Your task to perform on an android device: clear history in the chrome app Image 0: 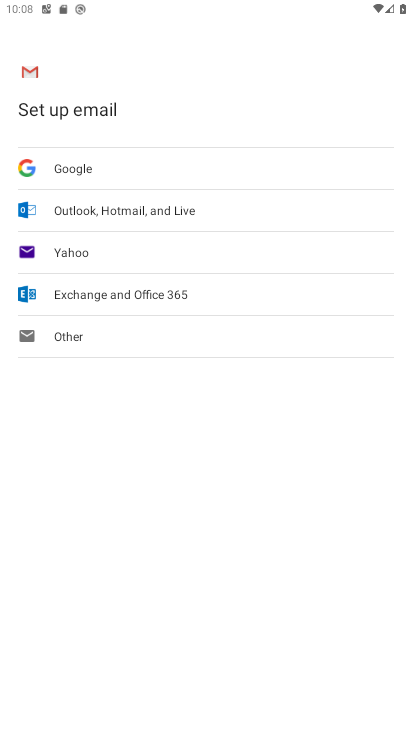
Step 0: press back button
Your task to perform on an android device: clear history in the chrome app Image 1: 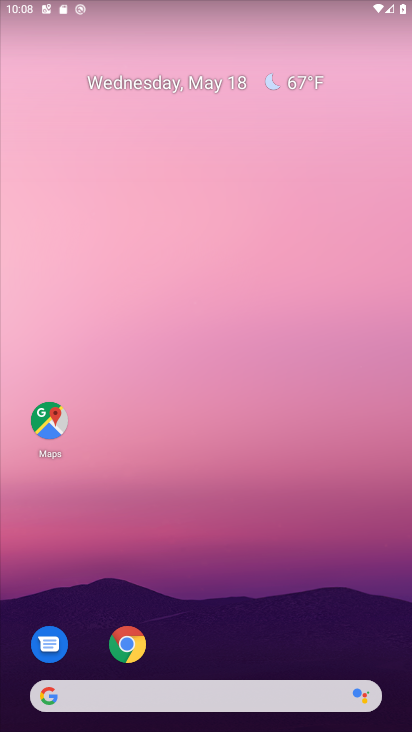
Step 1: click (129, 645)
Your task to perform on an android device: clear history in the chrome app Image 2: 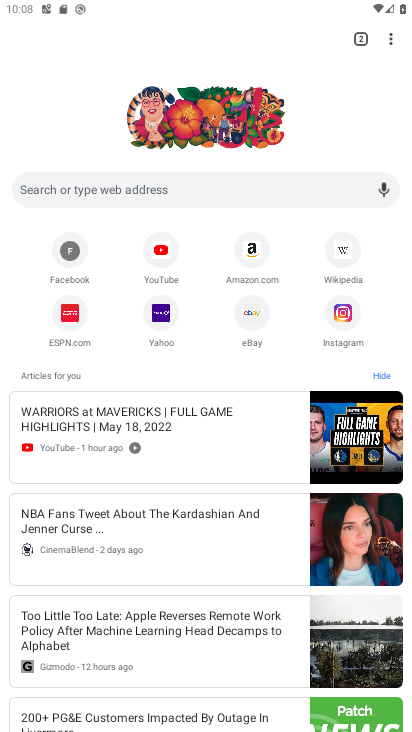
Step 2: click (392, 39)
Your task to perform on an android device: clear history in the chrome app Image 3: 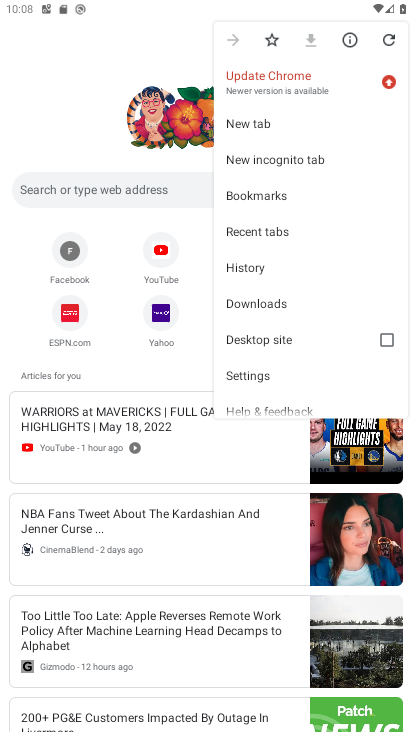
Step 3: click (256, 271)
Your task to perform on an android device: clear history in the chrome app Image 4: 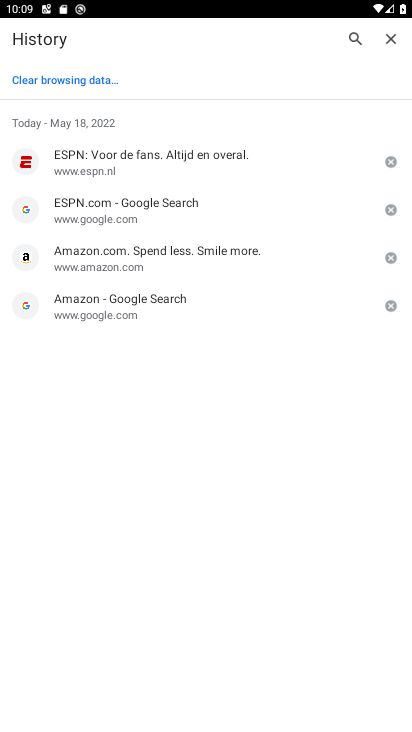
Step 4: click (80, 77)
Your task to perform on an android device: clear history in the chrome app Image 5: 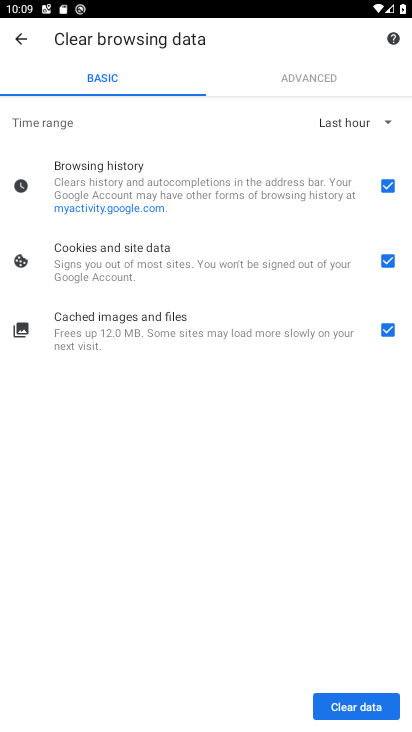
Step 5: click (345, 113)
Your task to perform on an android device: clear history in the chrome app Image 6: 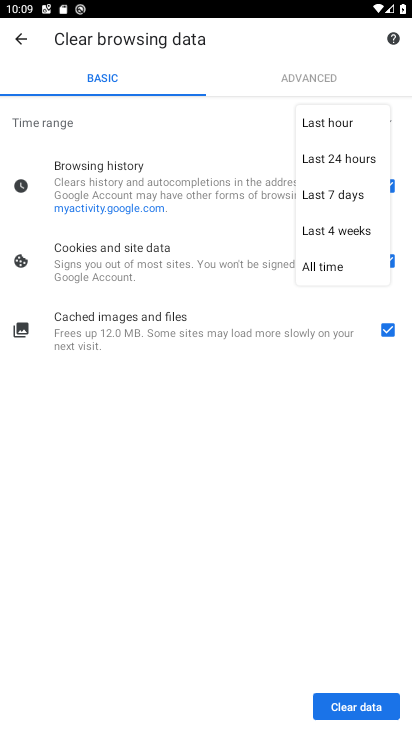
Step 6: click (327, 264)
Your task to perform on an android device: clear history in the chrome app Image 7: 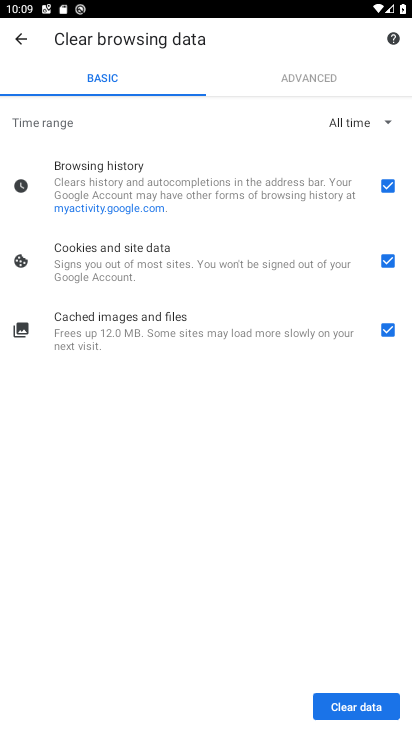
Step 7: click (357, 711)
Your task to perform on an android device: clear history in the chrome app Image 8: 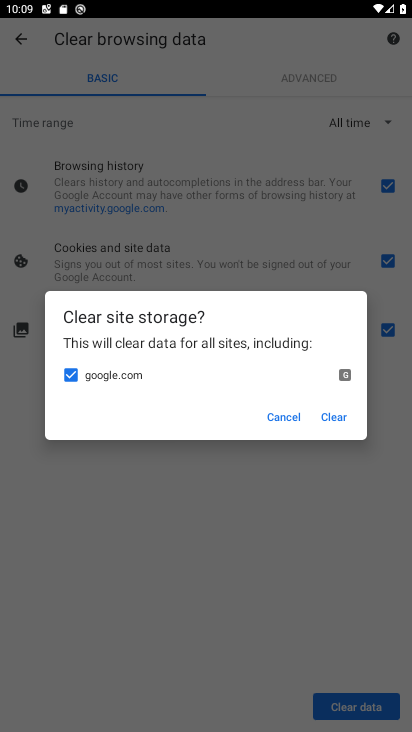
Step 8: click (332, 421)
Your task to perform on an android device: clear history in the chrome app Image 9: 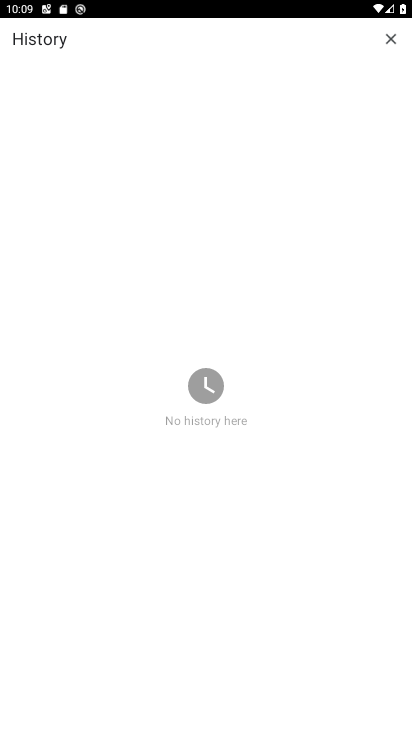
Step 9: task complete